Your task to perform on an android device: turn off wifi Image 0: 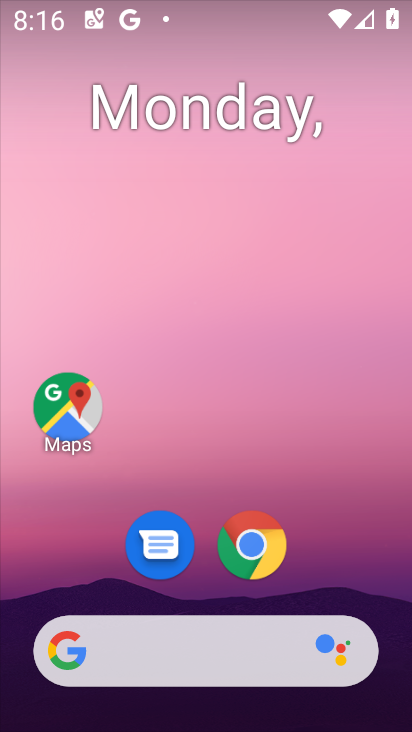
Step 0: press home button
Your task to perform on an android device: turn off wifi Image 1: 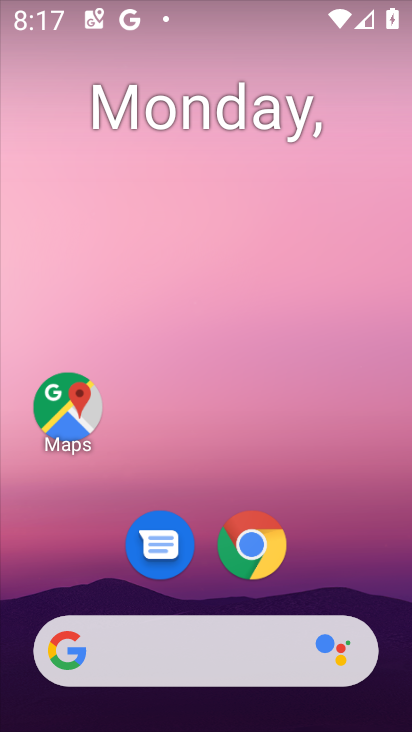
Step 1: drag from (195, 644) to (269, 116)
Your task to perform on an android device: turn off wifi Image 2: 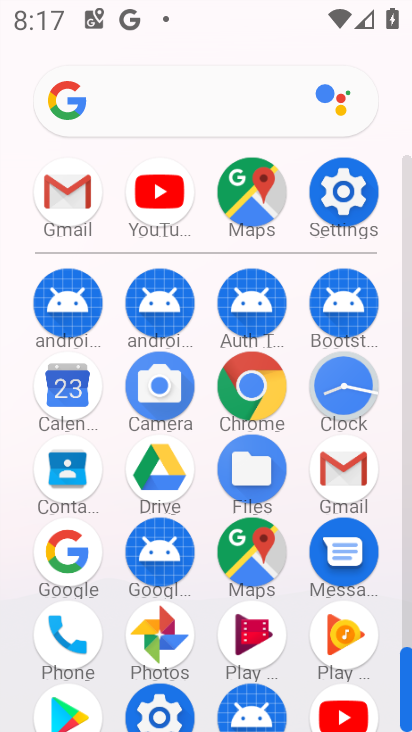
Step 2: click (357, 208)
Your task to perform on an android device: turn off wifi Image 3: 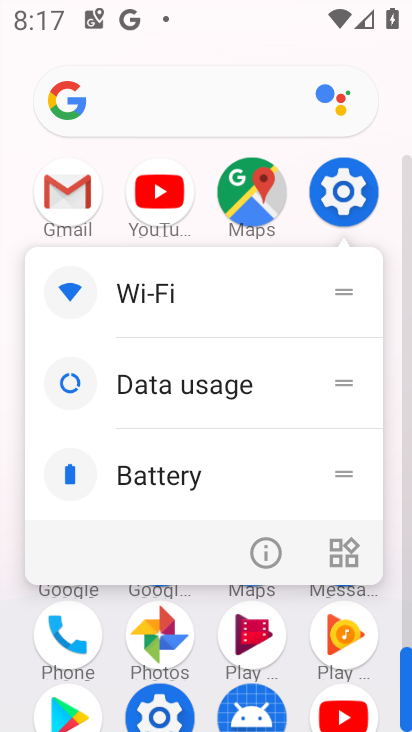
Step 3: click (351, 205)
Your task to perform on an android device: turn off wifi Image 4: 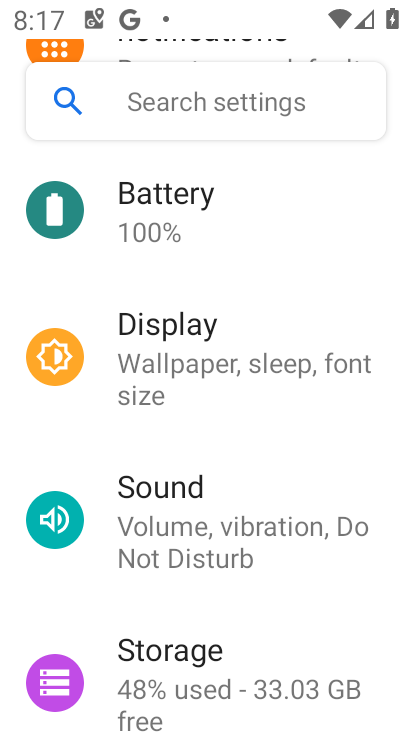
Step 4: drag from (308, 190) to (236, 543)
Your task to perform on an android device: turn off wifi Image 5: 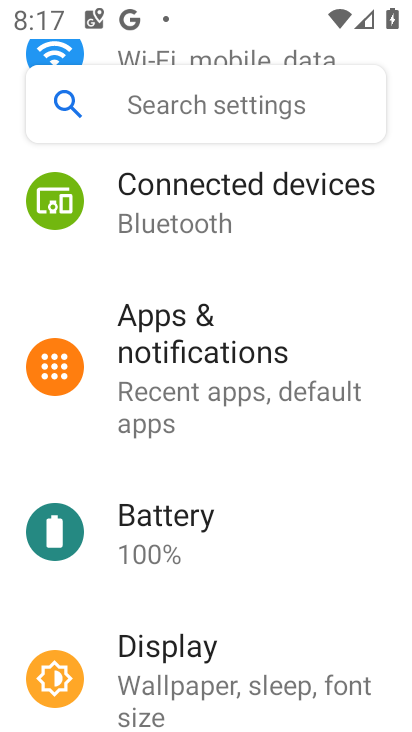
Step 5: drag from (296, 202) to (263, 565)
Your task to perform on an android device: turn off wifi Image 6: 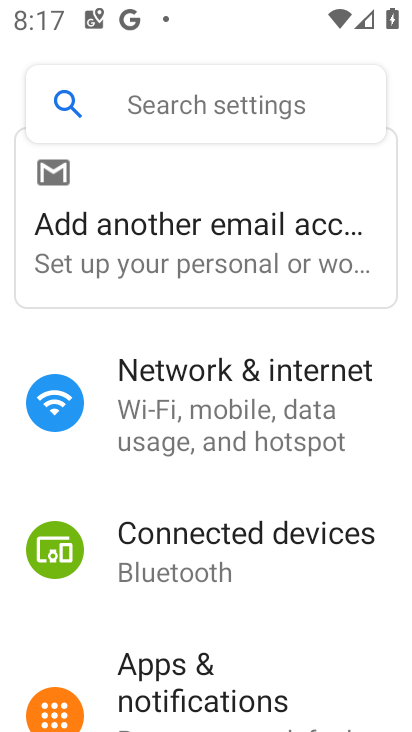
Step 6: click (258, 410)
Your task to perform on an android device: turn off wifi Image 7: 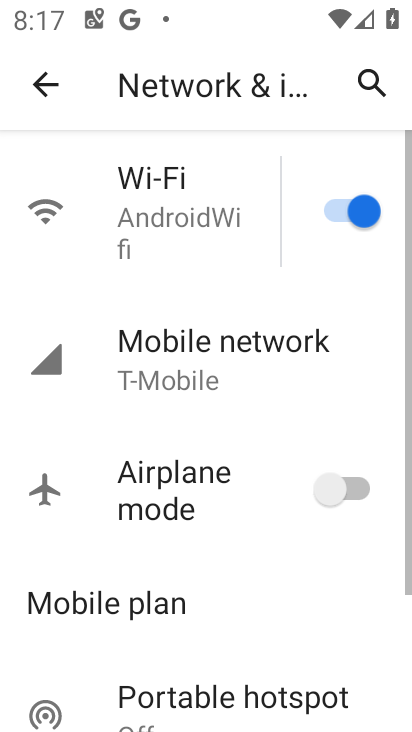
Step 7: click (336, 206)
Your task to perform on an android device: turn off wifi Image 8: 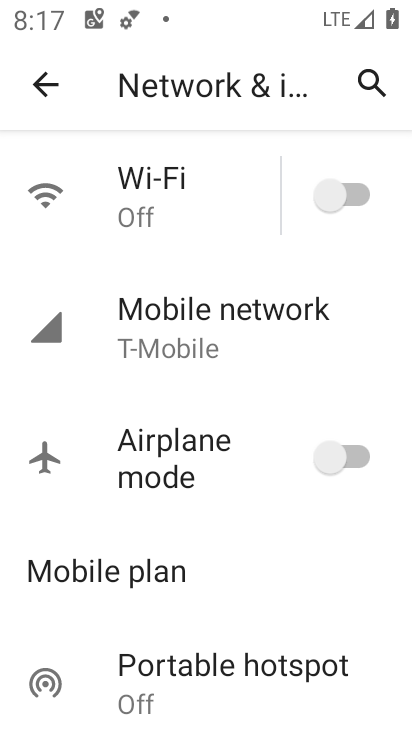
Step 8: task complete